Your task to perform on an android device: Open Chrome and go to the settings page Image 0: 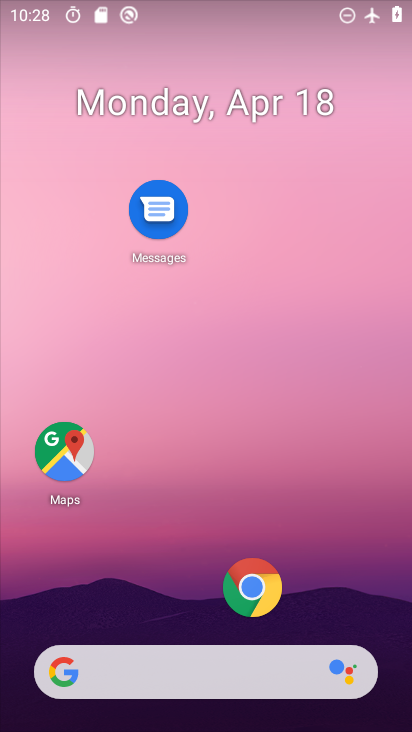
Step 0: click (260, 587)
Your task to perform on an android device: Open Chrome and go to the settings page Image 1: 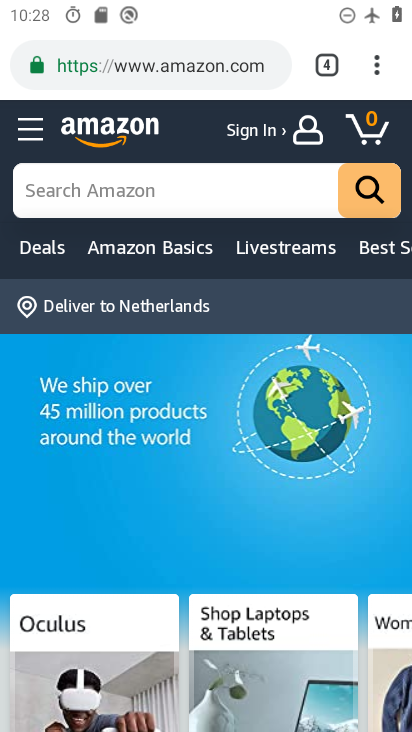
Step 1: click (382, 71)
Your task to perform on an android device: Open Chrome and go to the settings page Image 2: 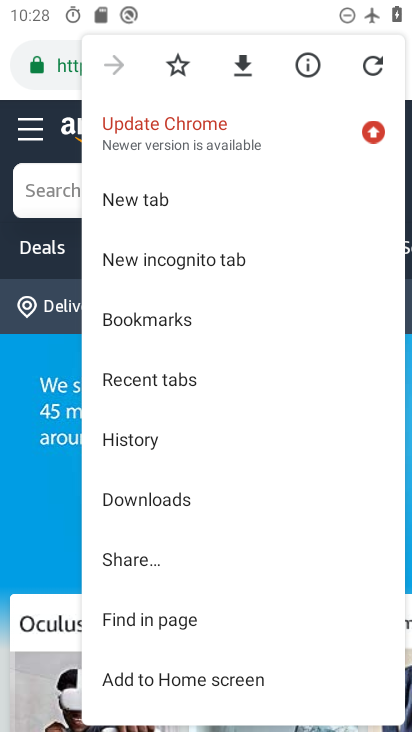
Step 2: drag from (157, 613) to (213, 304)
Your task to perform on an android device: Open Chrome and go to the settings page Image 3: 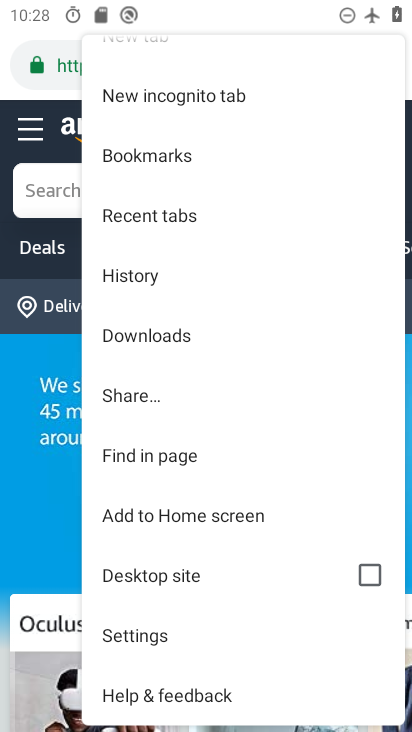
Step 3: click (137, 632)
Your task to perform on an android device: Open Chrome and go to the settings page Image 4: 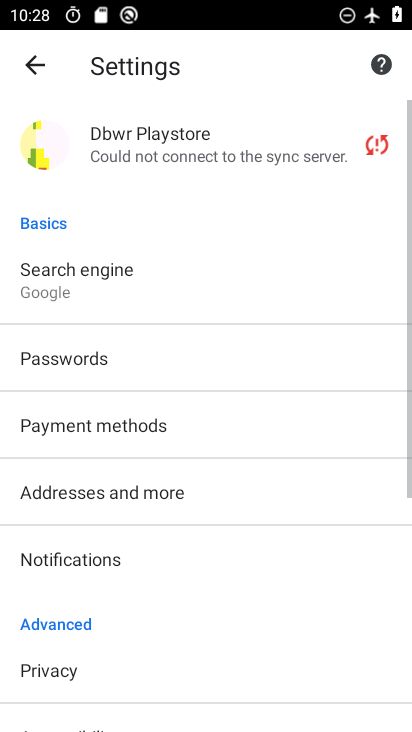
Step 4: task complete